Your task to perform on an android device: toggle airplane mode Image 0: 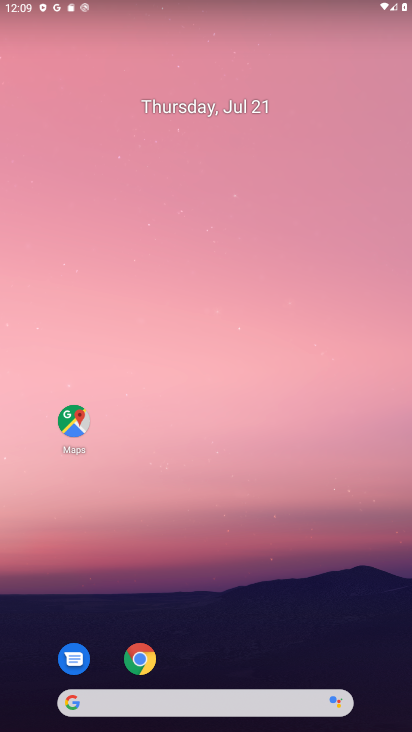
Step 0: click (153, 659)
Your task to perform on an android device: toggle airplane mode Image 1: 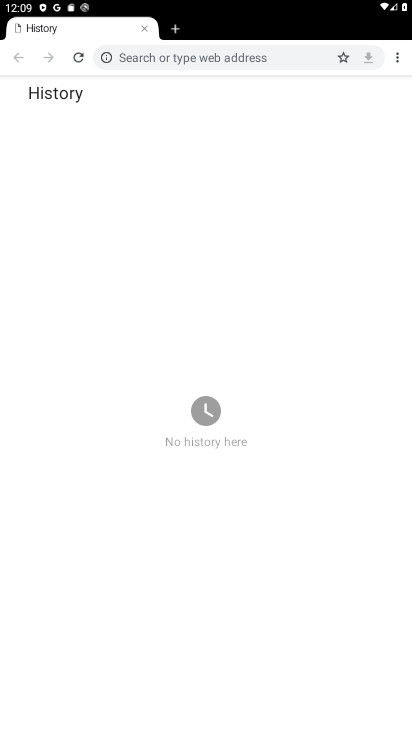
Step 1: press home button
Your task to perform on an android device: toggle airplane mode Image 2: 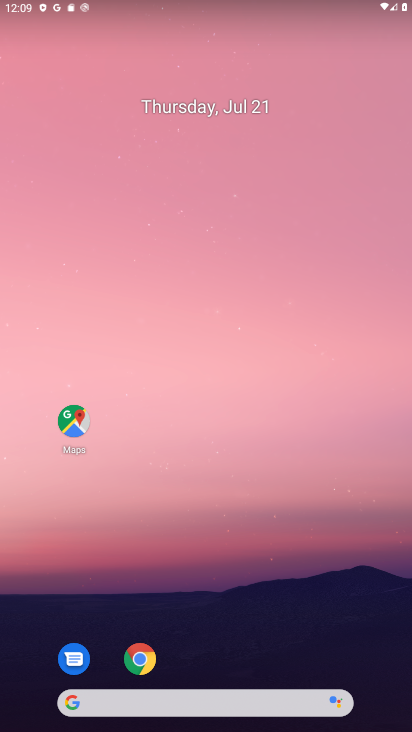
Step 2: drag from (313, 299) to (314, 181)
Your task to perform on an android device: toggle airplane mode Image 3: 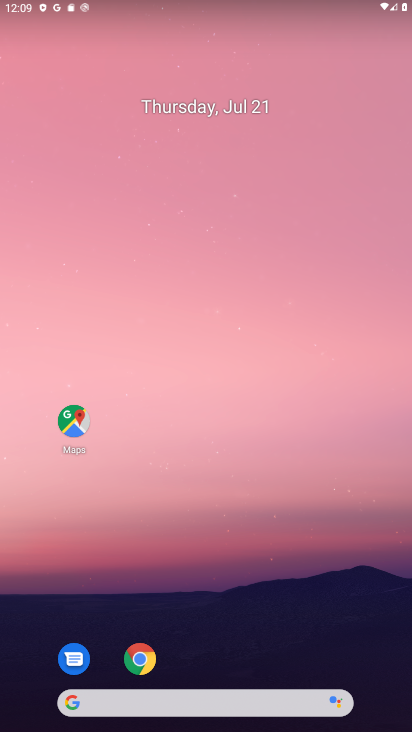
Step 3: drag from (341, 635) to (309, 157)
Your task to perform on an android device: toggle airplane mode Image 4: 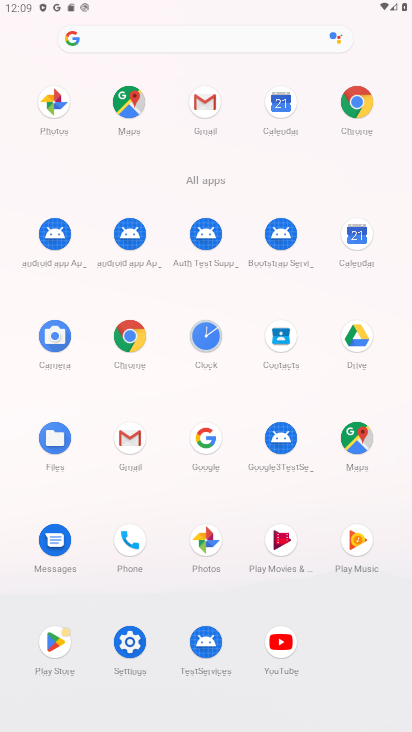
Step 4: click (124, 651)
Your task to perform on an android device: toggle airplane mode Image 5: 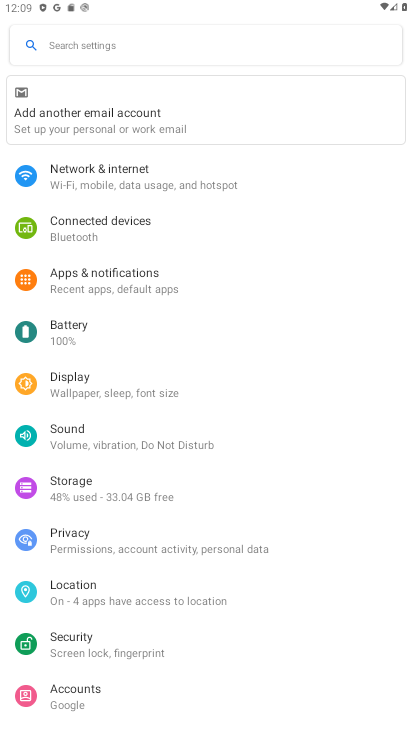
Step 5: click (179, 179)
Your task to perform on an android device: toggle airplane mode Image 6: 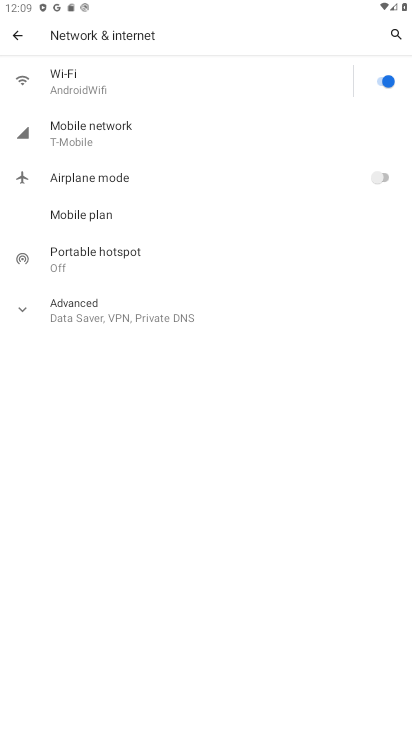
Step 6: click (179, 179)
Your task to perform on an android device: toggle airplane mode Image 7: 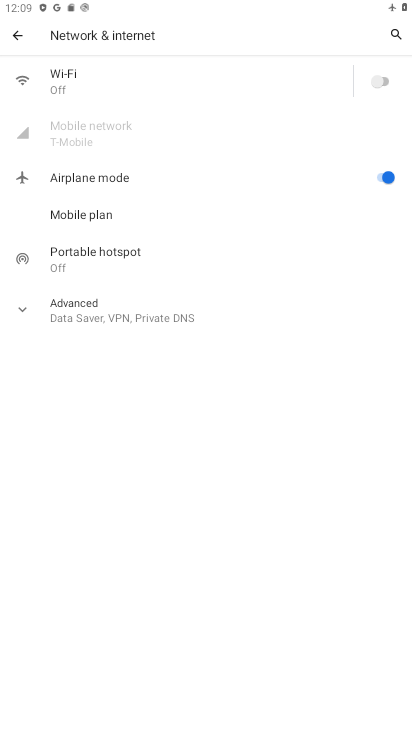
Step 7: task complete